Your task to perform on an android device: turn off data saver in the chrome app Image 0: 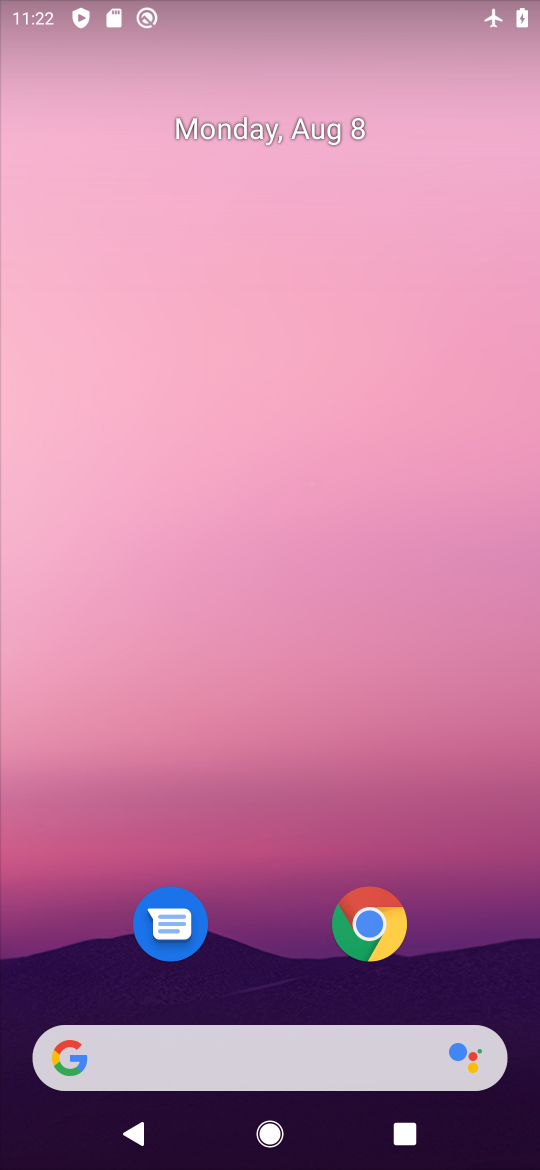
Step 0: drag from (294, 1004) to (322, 239)
Your task to perform on an android device: turn off data saver in the chrome app Image 1: 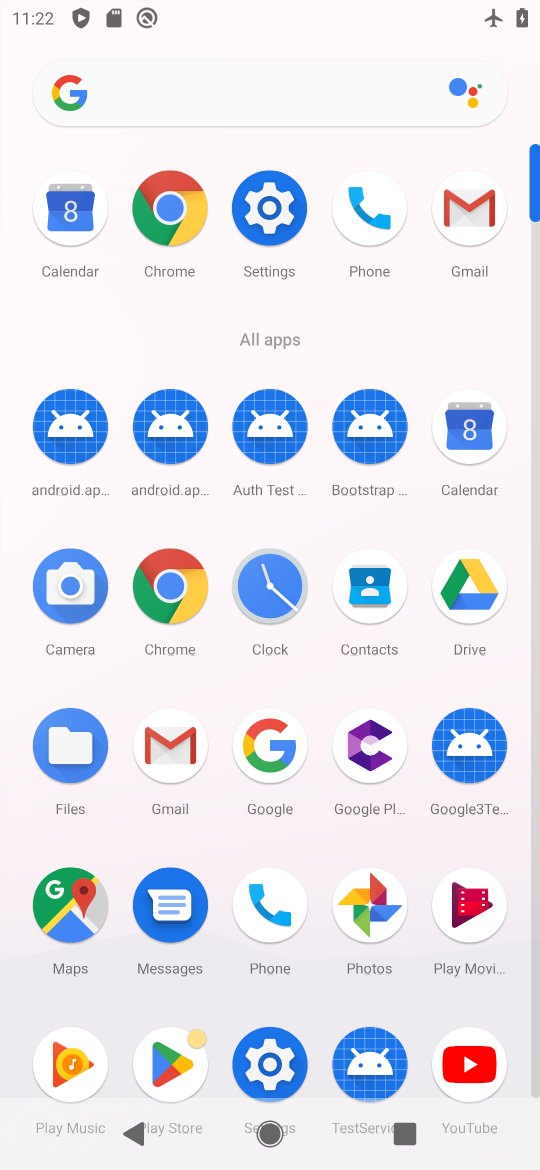
Step 1: click (164, 214)
Your task to perform on an android device: turn off data saver in the chrome app Image 2: 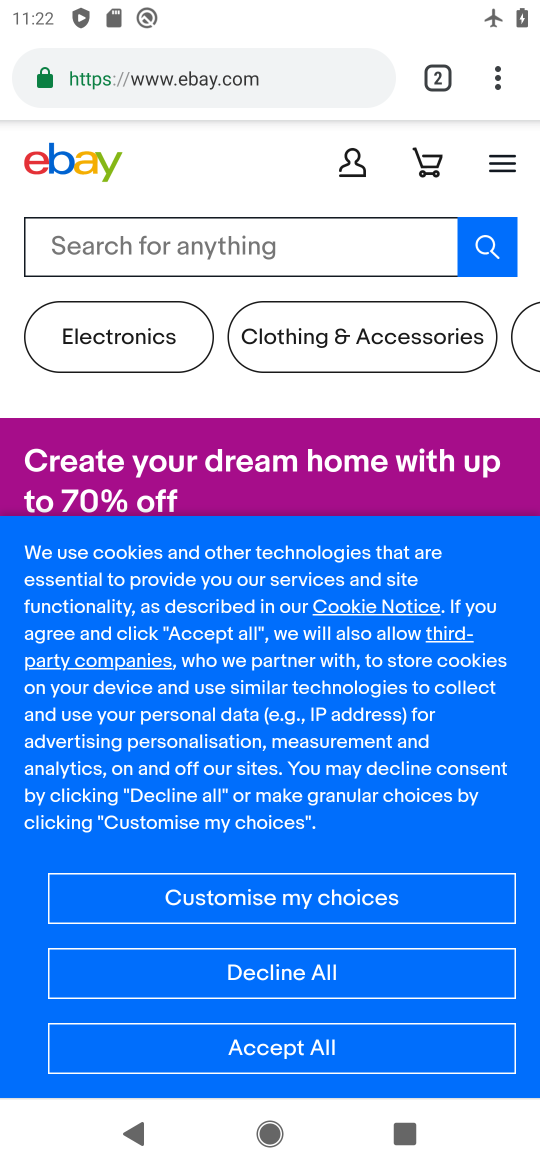
Step 2: click (497, 86)
Your task to perform on an android device: turn off data saver in the chrome app Image 3: 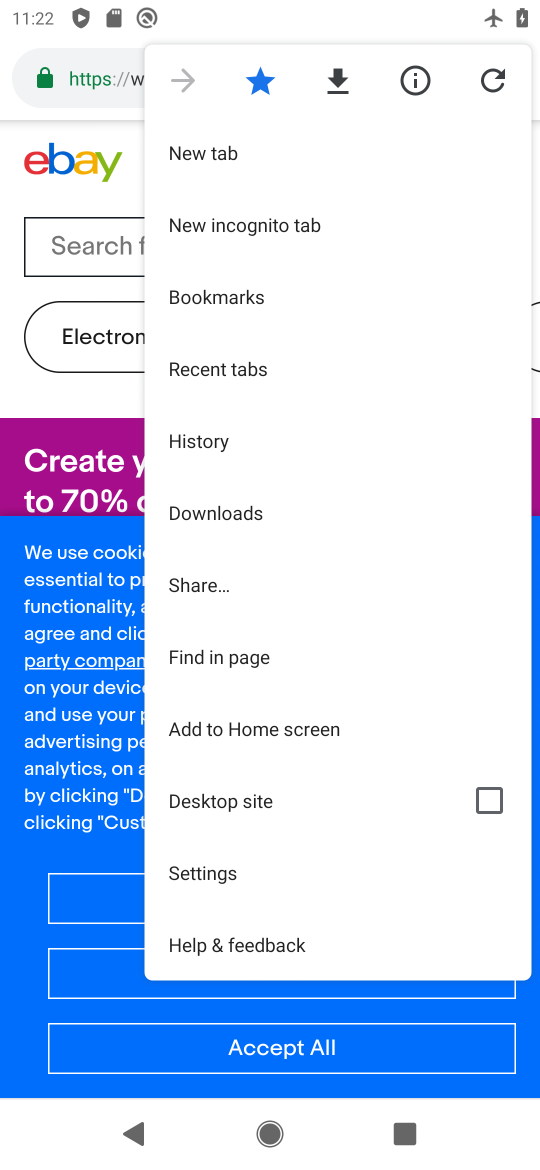
Step 3: click (183, 858)
Your task to perform on an android device: turn off data saver in the chrome app Image 4: 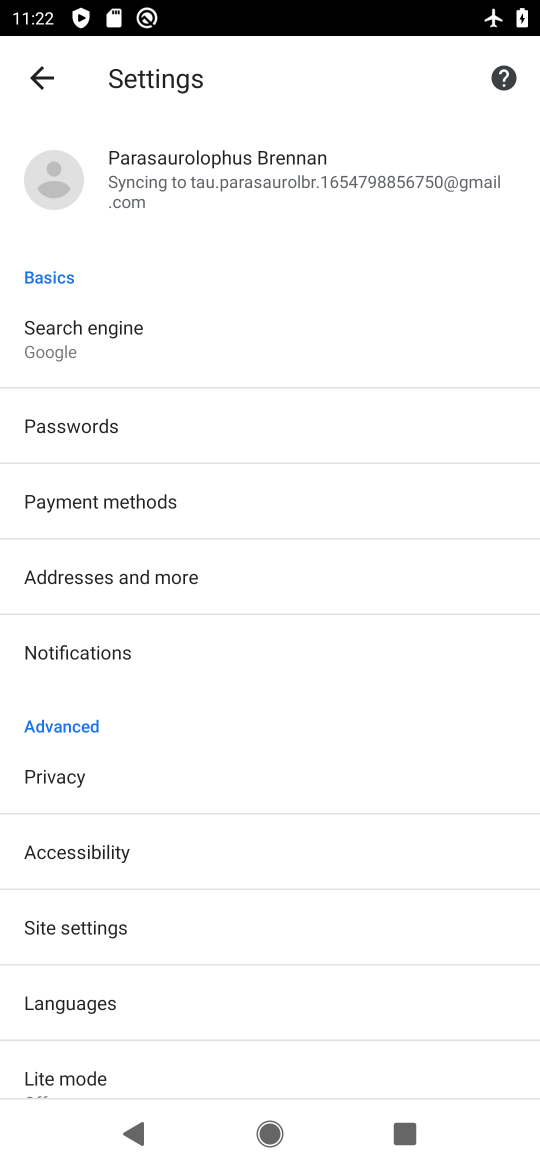
Step 4: drag from (183, 858) to (167, 436)
Your task to perform on an android device: turn off data saver in the chrome app Image 5: 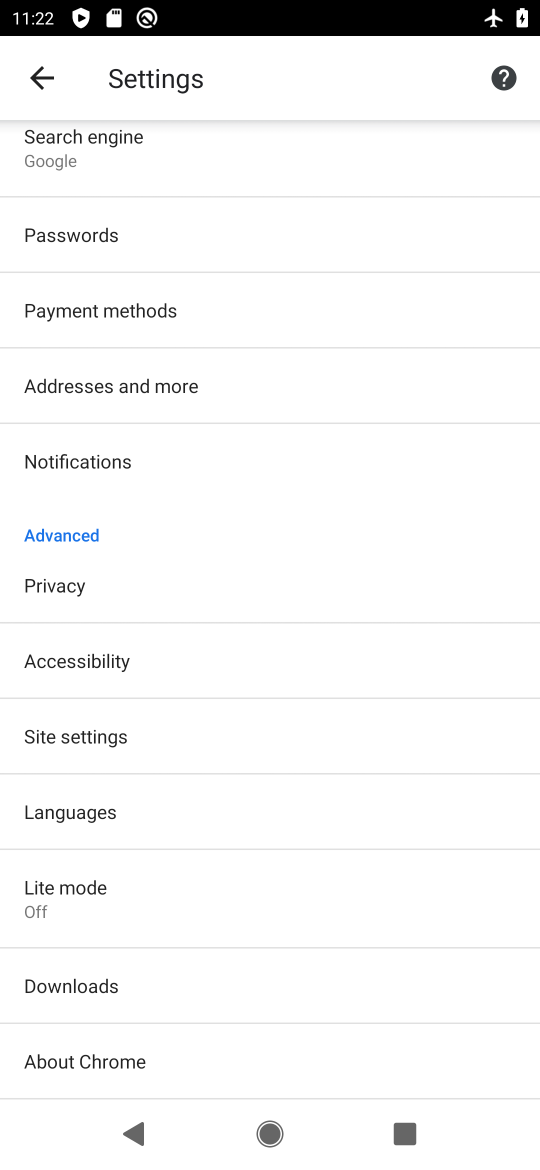
Step 5: click (109, 909)
Your task to perform on an android device: turn off data saver in the chrome app Image 6: 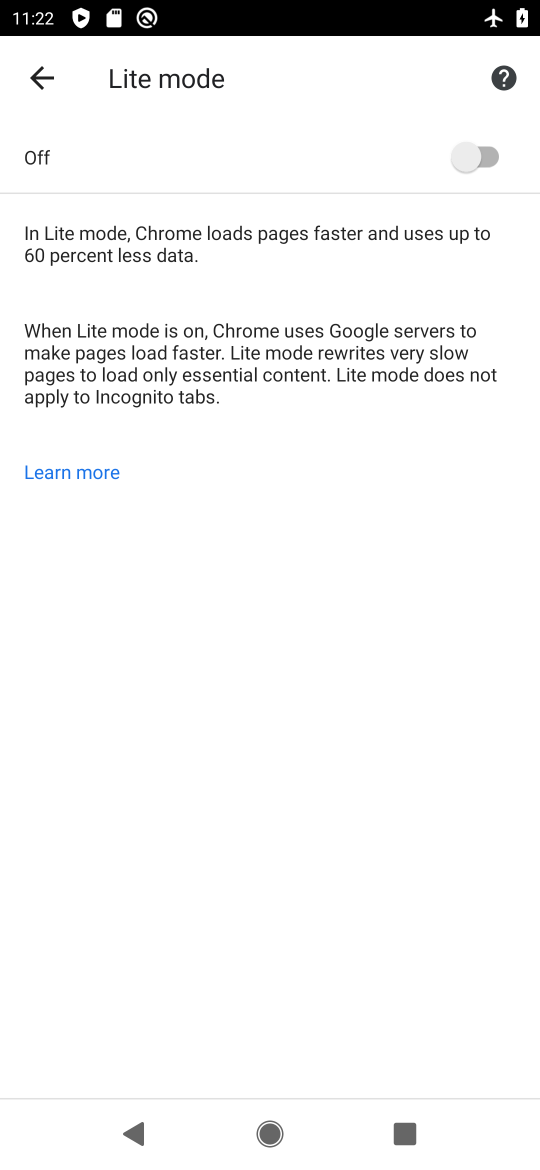
Step 6: task complete